Your task to perform on an android device: Go to Google maps Image 0: 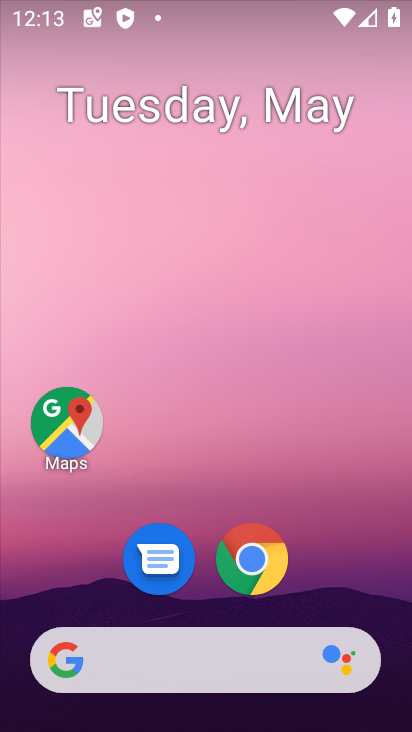
Step 0: click (55, 435)
Your task to perform on an android device: Go to Google maps Image 1: 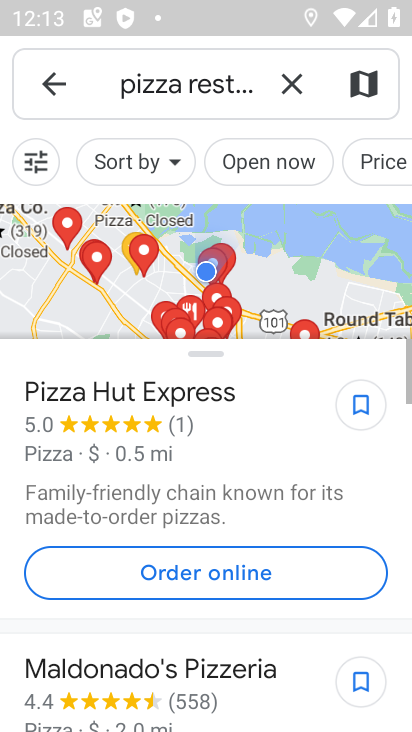
Step 1: click (281, 100)
Your task to perform on an android device: Go to Google maps Image 2: 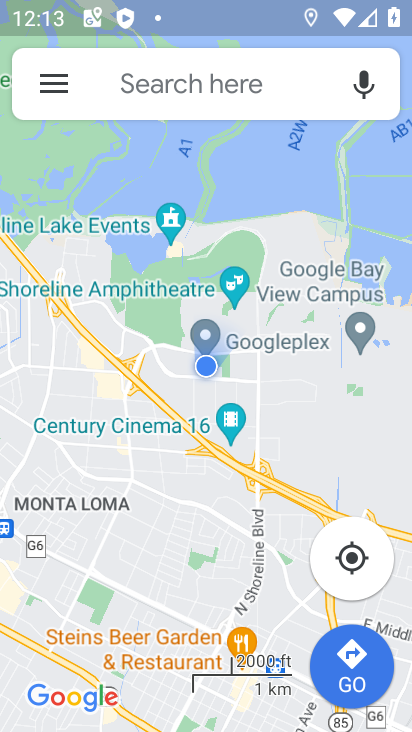
Step 2: task complete